Your task to perform on an android device: Go to Google maps Image 0: 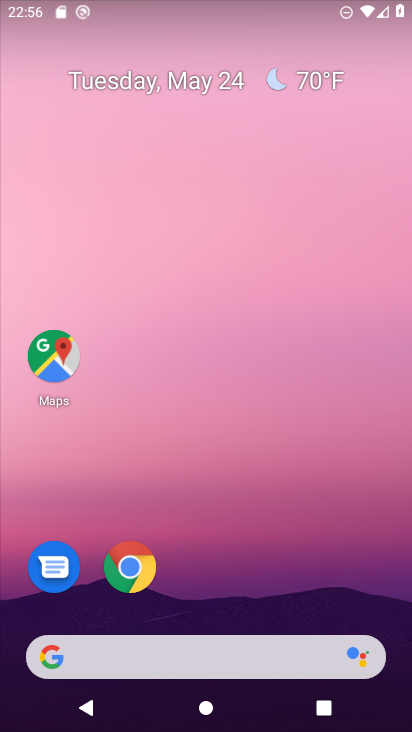
Step 0: click (55, 378)
Your task to perform on an android device: Go to Google maps Image 1: 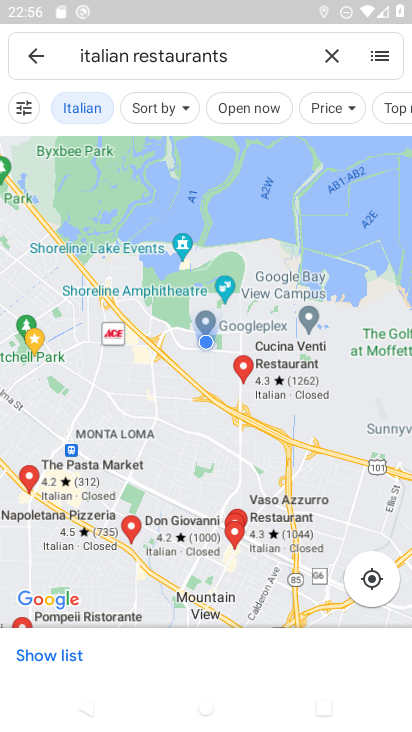
Step 1: task complete